Your task to perform on an android device: Open Maps and search for coffee Image 0: 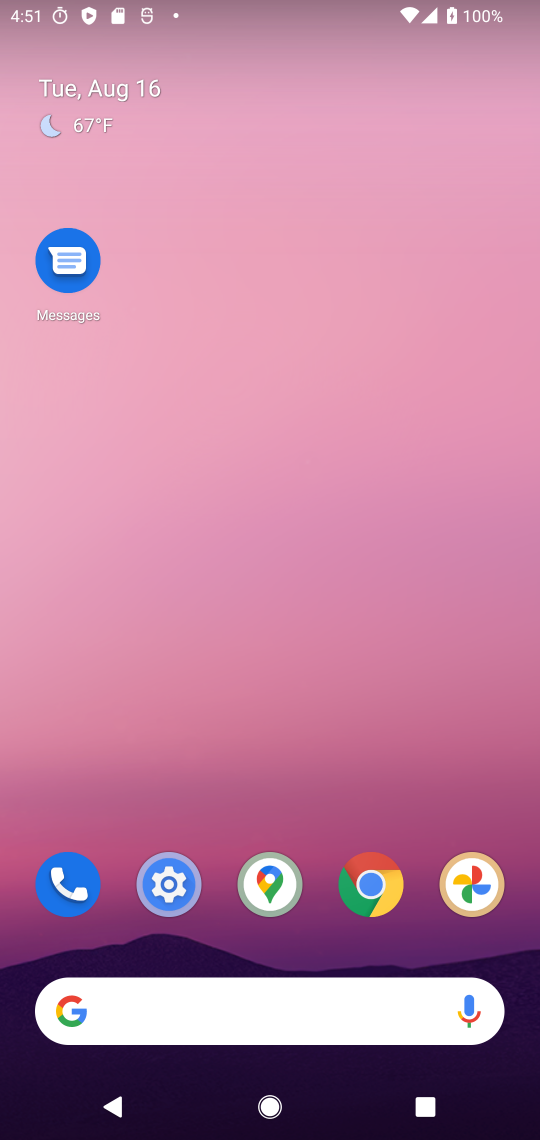
Step 0: click (282, 890)
Your task to perform on an android device: Open Maps and search for coffee Image 1: 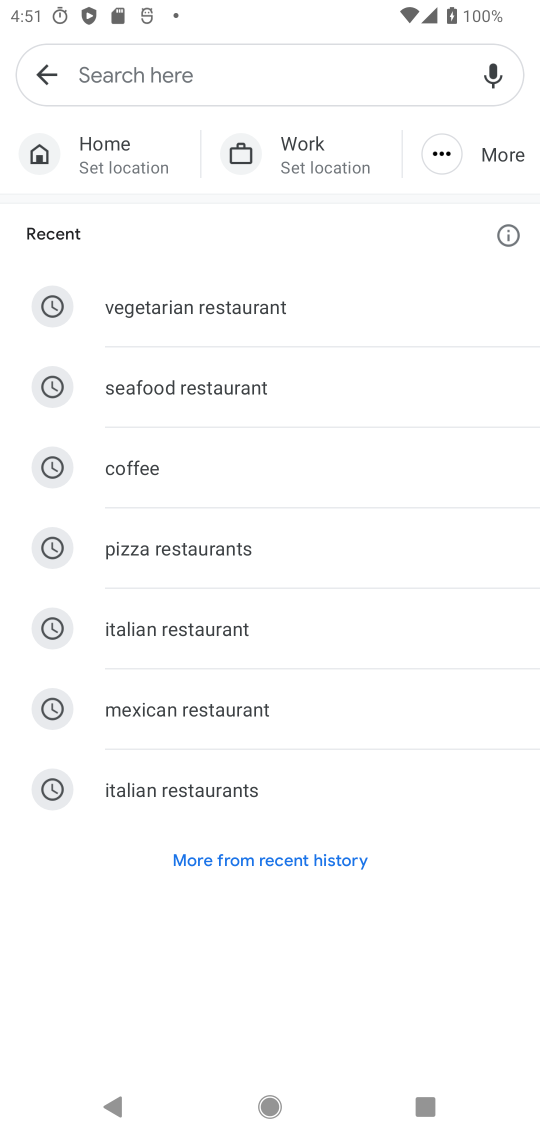
Step 1: click (135, 458)
Your task to perform on an android device: Open Maps and search for coffee Image 2: 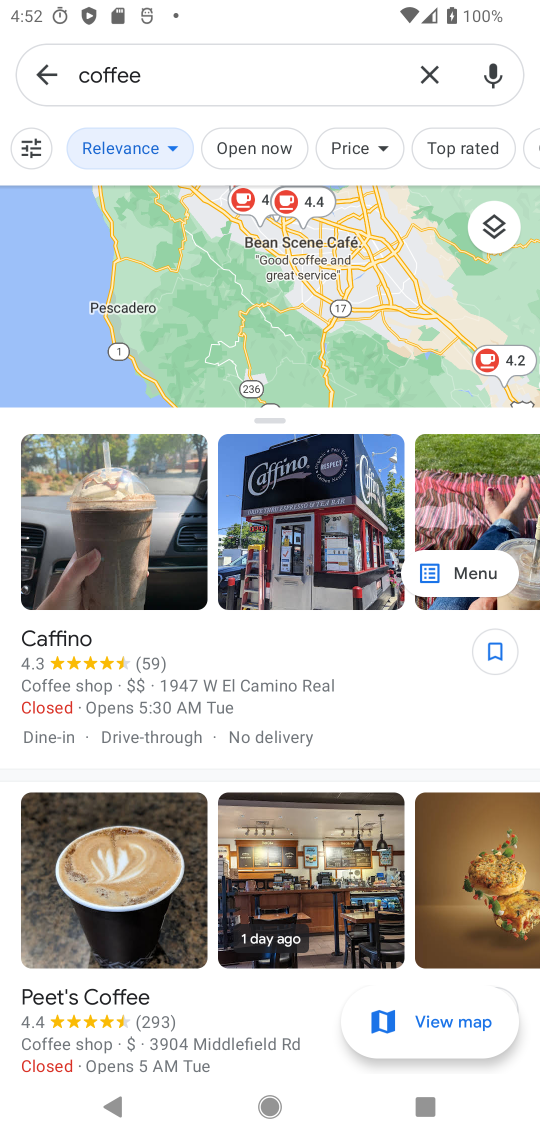
Step 2: task complete